Your task to perform on an android device: Open internet settings Image 0: 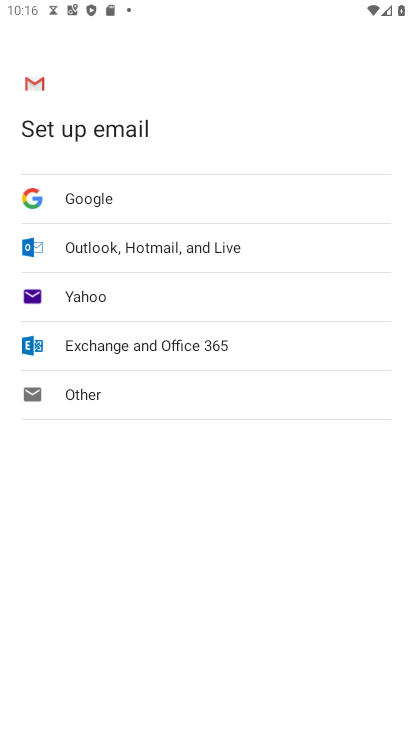
Step 0: press home button
Your task to perform on an android device: Open internet settings Image 1: 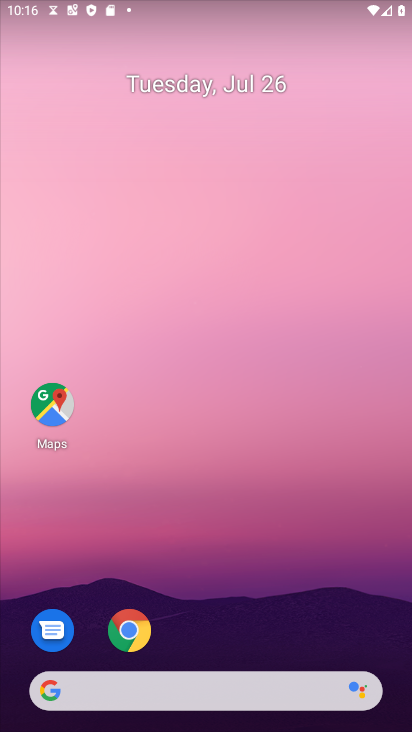
Step 1: drag from (165, 516) to (174, 24)
Your task to perform on an android device: Open internet settings Image 2: 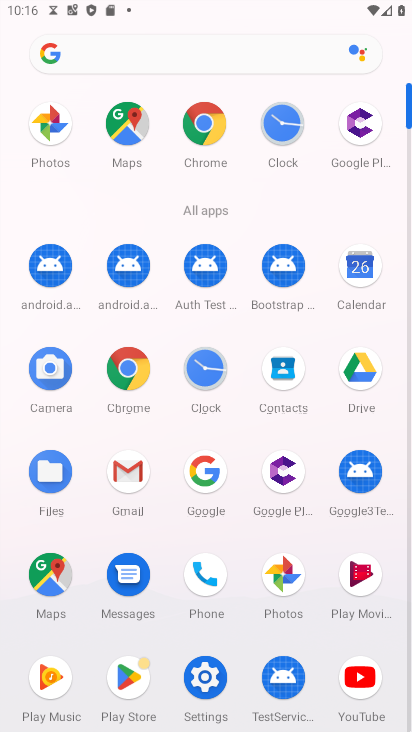
Step 2: click (207, 668)
Your task to perform on an android device: Open internet settings Image 3: 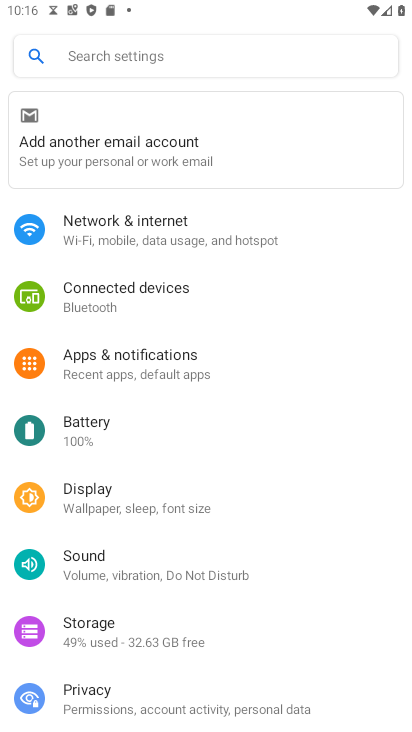
Step 3: click (138, 229)
Your task to perform on an android device: Open internet settings Image 4: 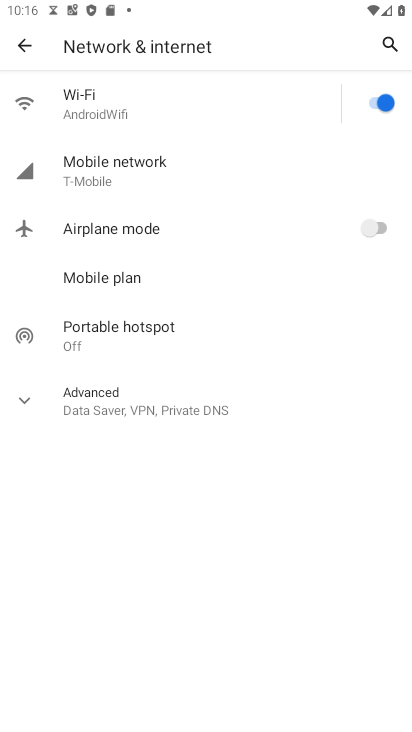
Step 4: task complete